Your task to perform on an android device: change the upload size in google photos Image 0: 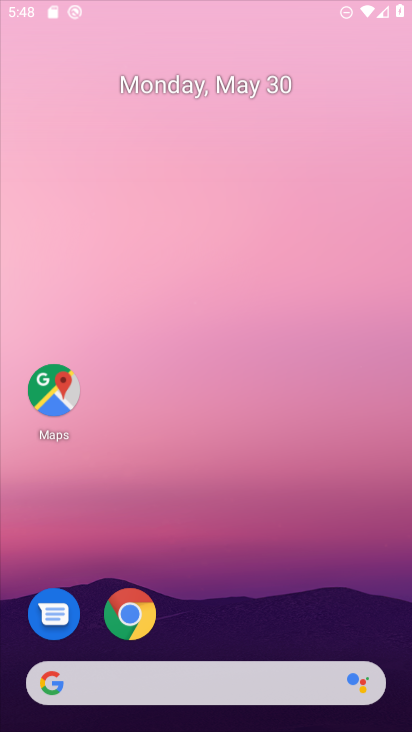
Step 0: click (255, 78)
Your task to perform on an android device: change the upload size in google photos Image 1: 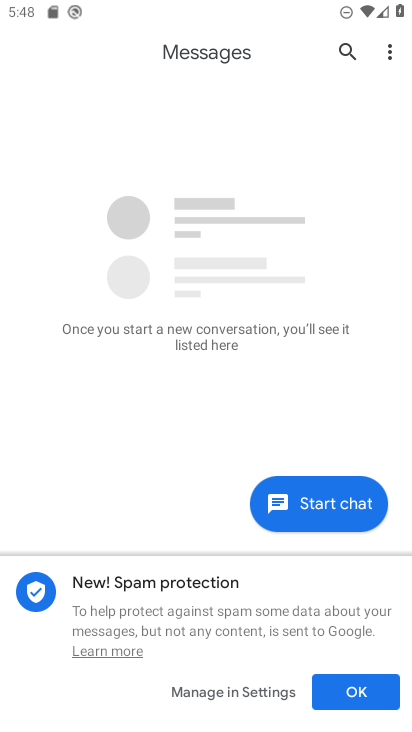
Step 1: press home button
Your task to perform on an android device: change the upload size in google photos Image 2: 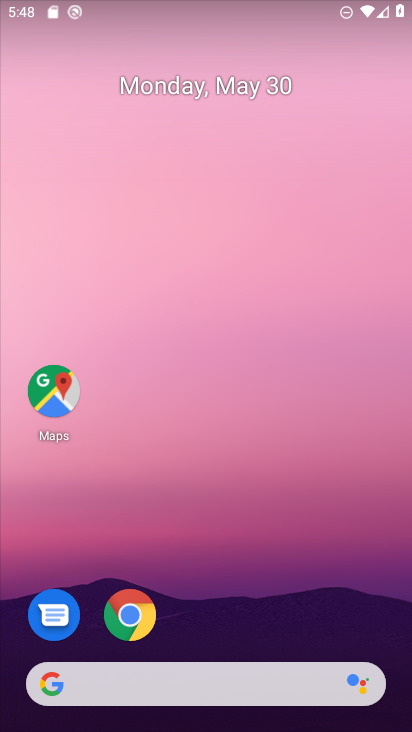
Step 2: drag from (205, 632) to (244, 156)
Your task to perform on an android device: change the upload size in google photos Image 3: 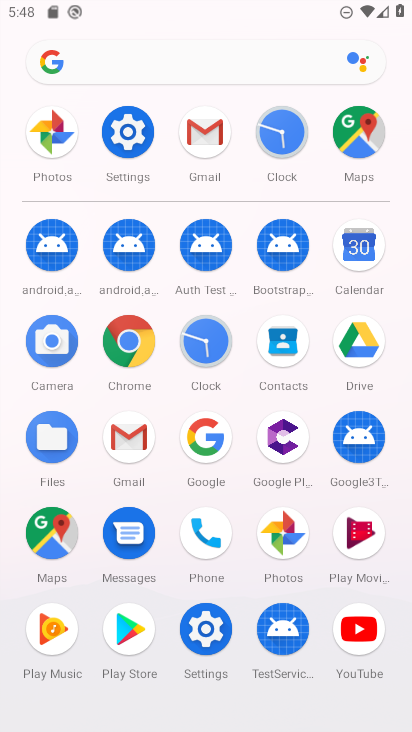
Step 3: click (33, 126)
Your task to perform on an android device: change the upload size in google photos Image 4: 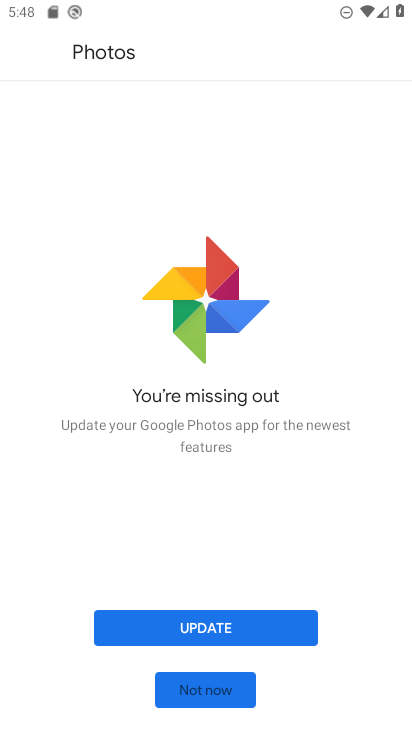
Step 4: click (202, 683)
Your task to perform on an android device: change the upload size in google photos Image 5: 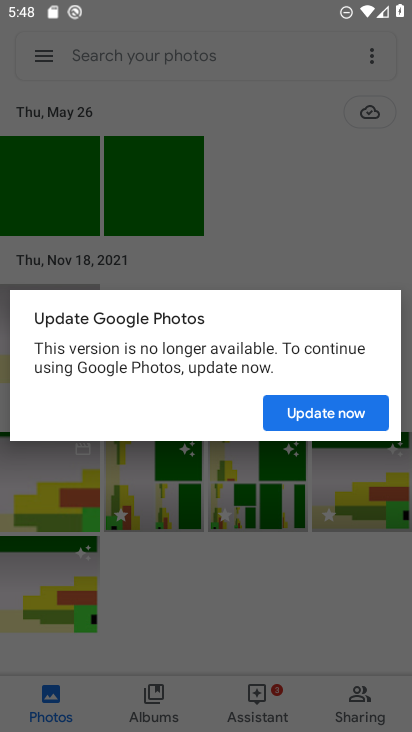
Step 5: click (318, 426)
Your task to perform on an android device: change the upload size in google photos Image 6: 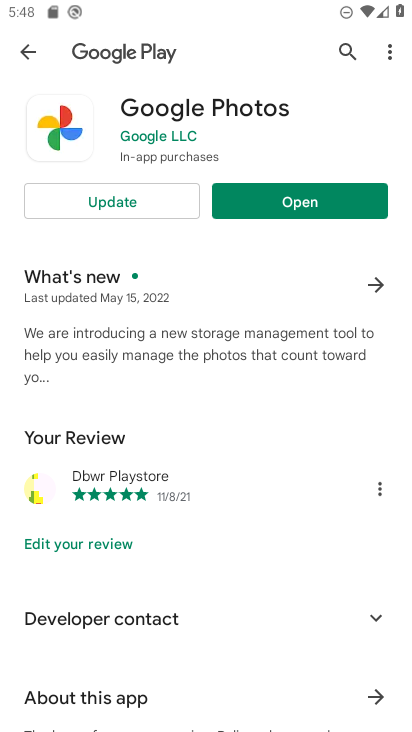
Step 6: click (289, 190)
Your task to perform on an android device: change the upload size in google photos Image 7: 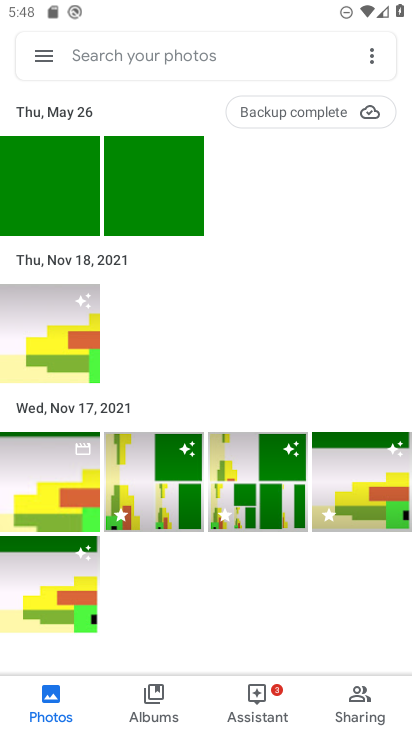
Step 7: click (26, 54)
Your task to perform on an android device: change the upload size in google photos Image 8: 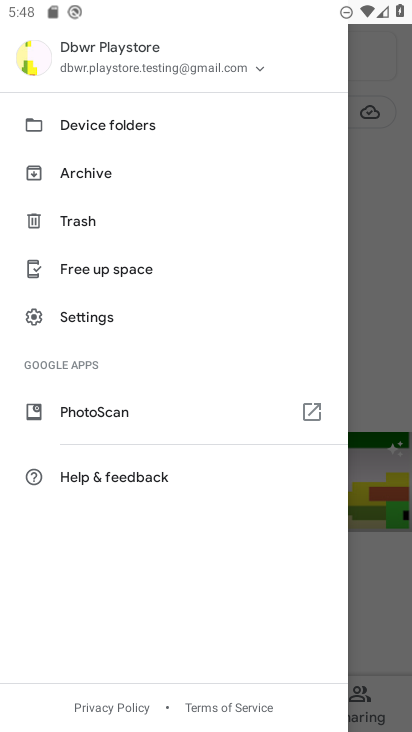
Step 8: click (90, 329)
Your task to perform on an android device: change the upload size in google photos Image 9: 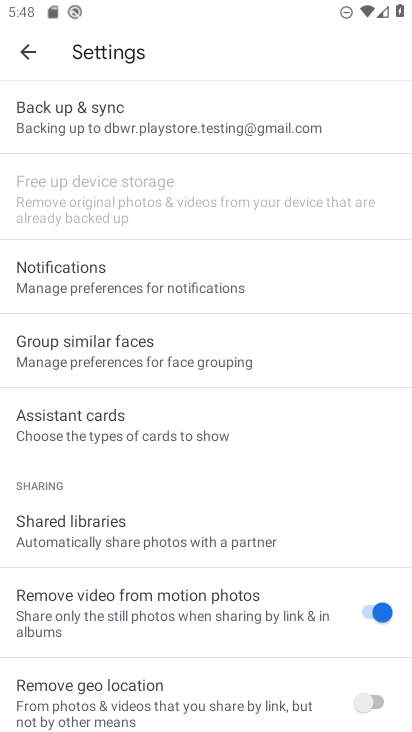
Step 9: click (155, 97)
Your task to perform on an android device: change the upload size in google photos Image 10: 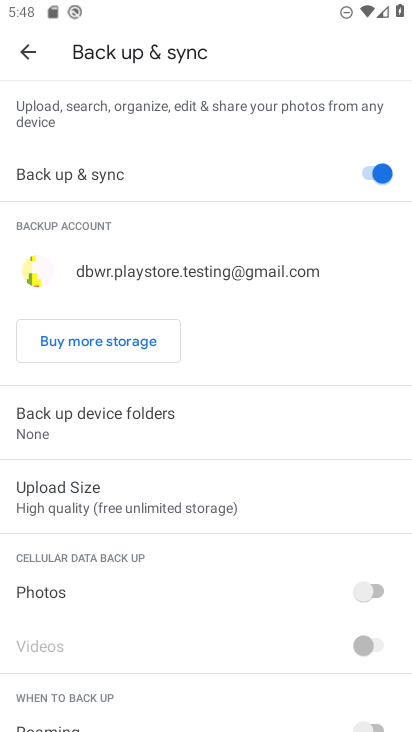
Step 10: click (203, 502)
Your task to perform on an android device: change the upload size in google photos Image 11: 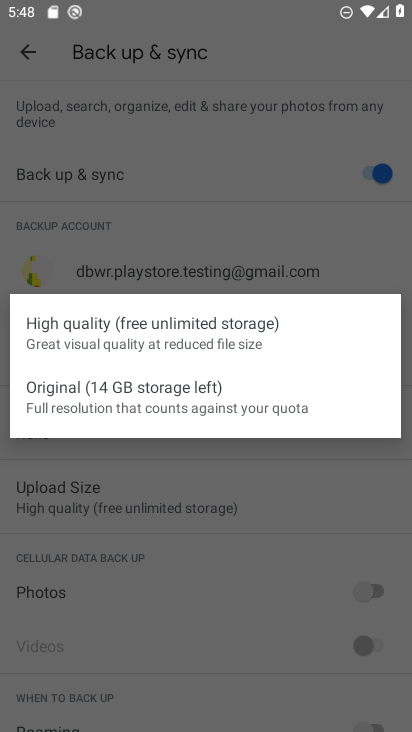
Step 11: click (189, 415)
Your task to perform on an android device: change the upload size in google photos Image 12: 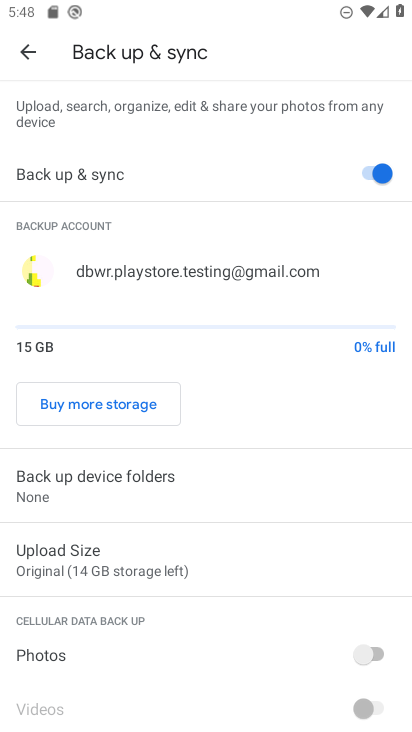
Step 12: task complete